Your task to perform on an android device: delete the emails in spam in the gmail app Image 0: 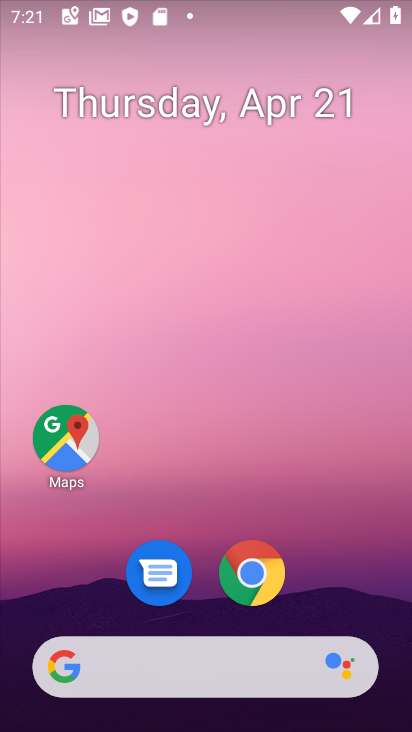
Step 0: drag from (387, 597) to (371, 0)
Your task to perform on an android device: delete the emails in spam in the gmail app Image 1: 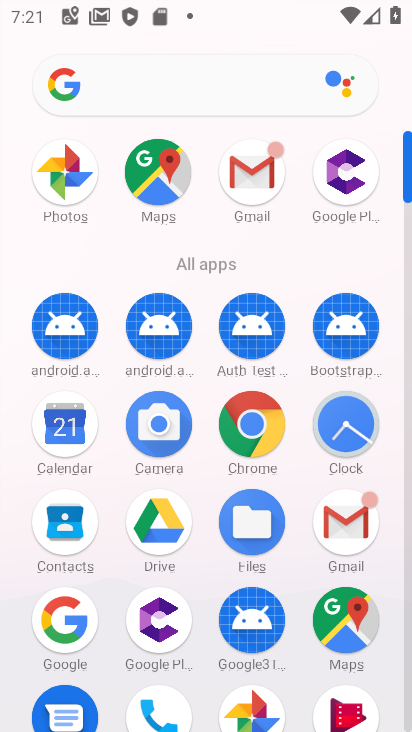
Step 1: click (349, 505)
Your task to perform on an android device: delete the emails in spam in the gmail app Image 2: 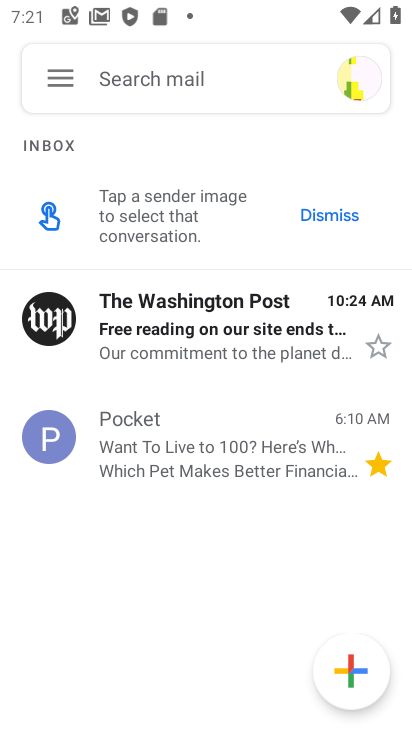
Step 2: click (206, 352)
Your task to perform on an android device: delete the emails in spam in the gmail app Image 3: 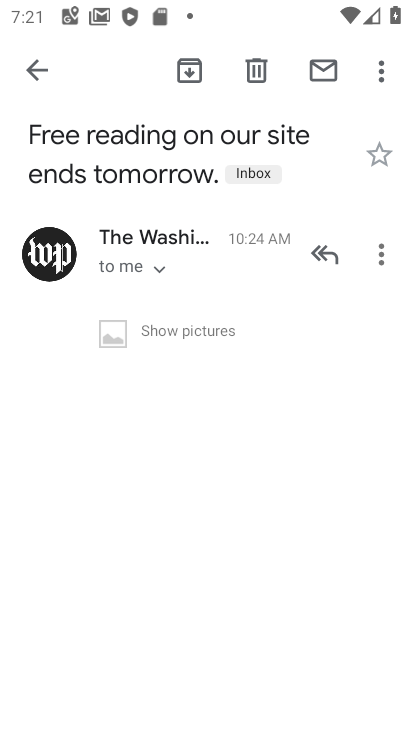
Step 3: click (249, 75)
Your task to perform on an android device: delete the emails in spam in the gmail app Image 4: 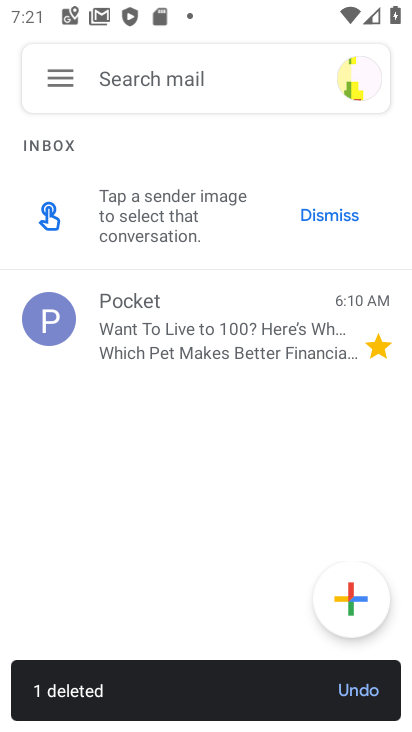
Step 4: task complete